Your task to perform on an android device: all mails in gmail Image 0: 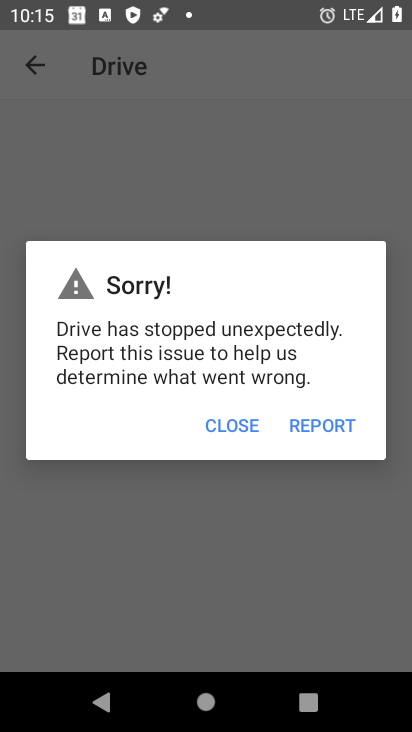
Step 0: press home button
Your task to perform on an android device: all mails in gmail Image 1: 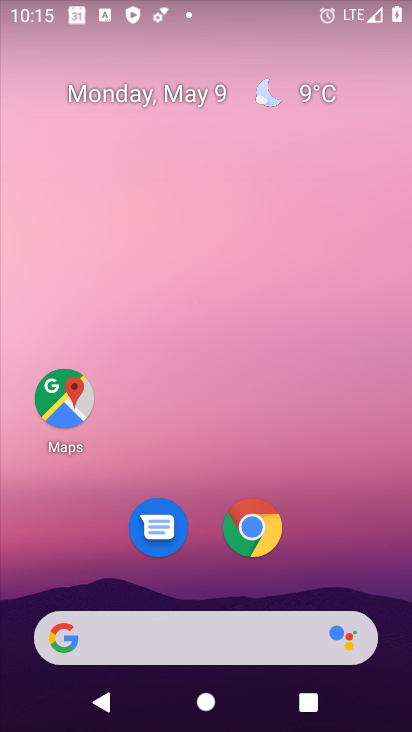
Step 1: drag from (393, 646) to (379, 2)
Your task to perform on an android device: all mails in gmail Image 2: 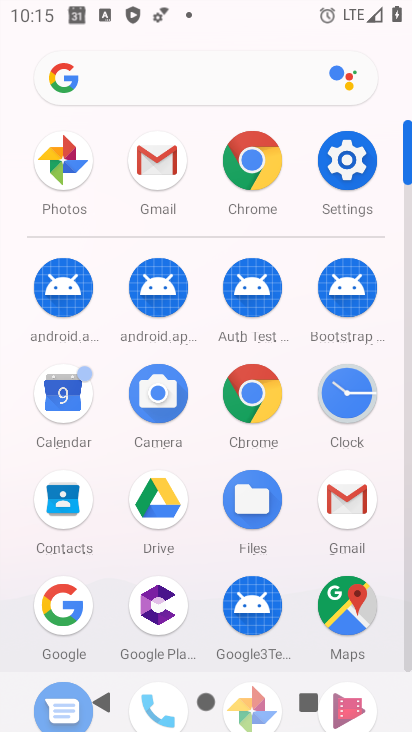
Step 2: click (409, 658)
Your task to perform on an android device: all mails in gmail Image 3: 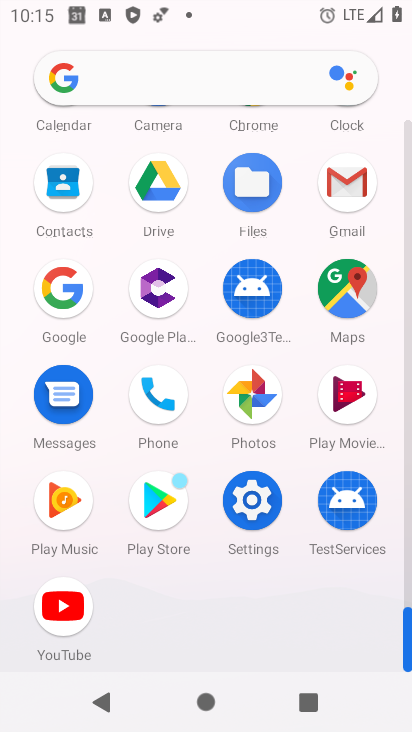
Step 3: click (345, 180)
Your task to perform on an android device: all mails in gmail Image 4: 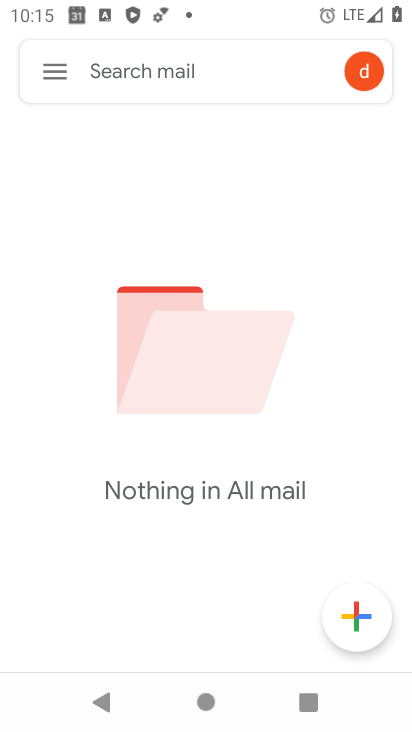
Step 4: click (52, 67)
Your task to perform on an android device: all mails in gmail Image 5: 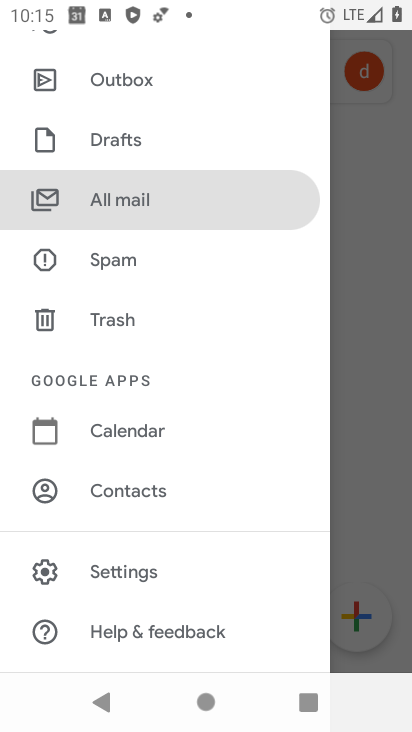
Step 5: click (125, 196)
Your task to perform on an android device: all mails in gmail Image 6: 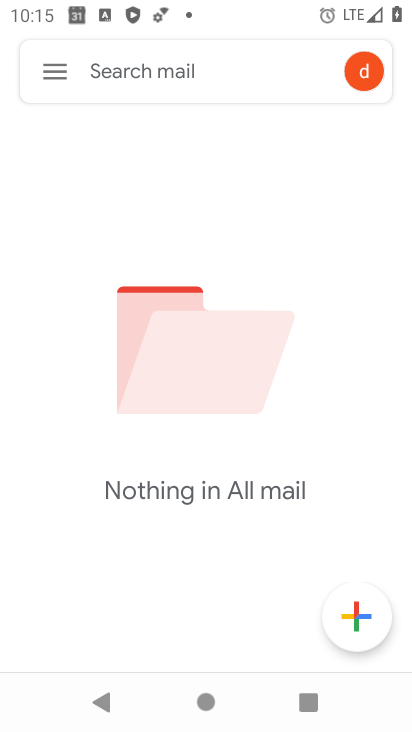
Step 6: task complete